Your task to perform on an android device: open app "Google Play services" Image 0: 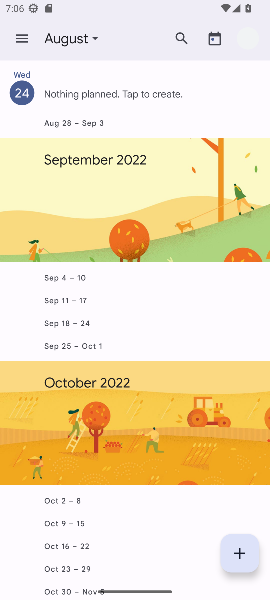
Step 0: press home button
Your task to perform on an android device: open app "Google Play services" Image 1: 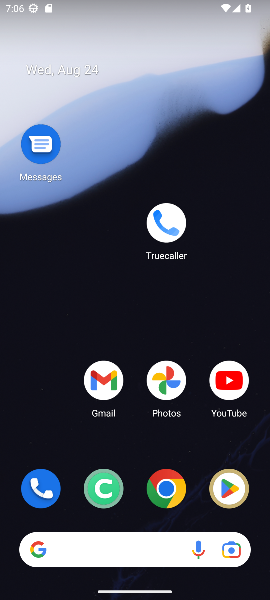
Step 1: click (217, 495)
Your task to perform on an android device: open app "Google Play services" Image 2: 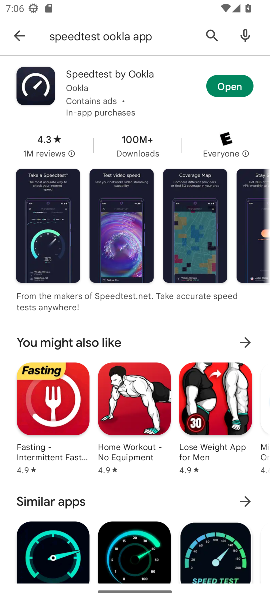
Step 2: click (214, 42)
Your task to perform on an android device: open app "Google Play services" Image 3: 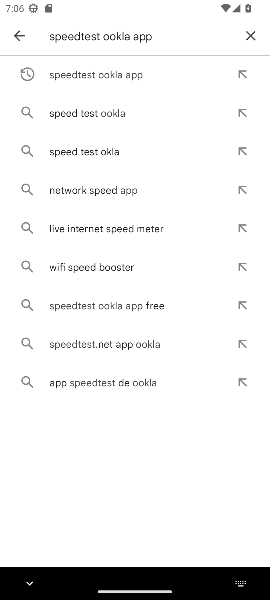
Step 3: click (247, 36)
Your task to perform on an android device: open app "Google Play services" Image 4: 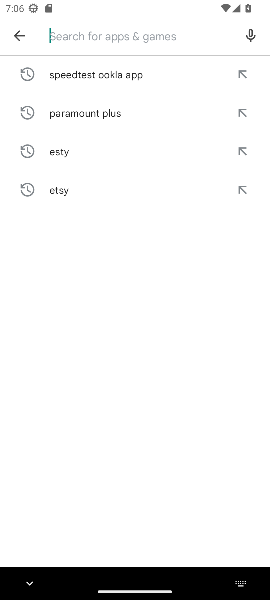
Step 4: type "google play"
Your task to perform on an android device: open app "Google Play services" Image 5: 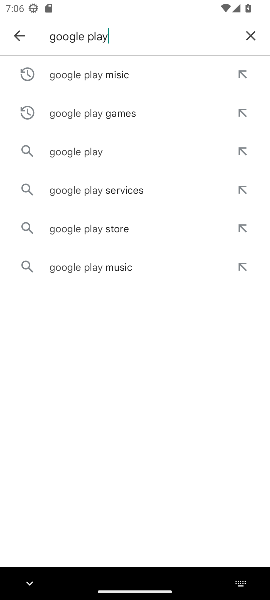
Step 5: click (104, 183)
Your task to perform on an android device: open app "Google Play services" Image 6: 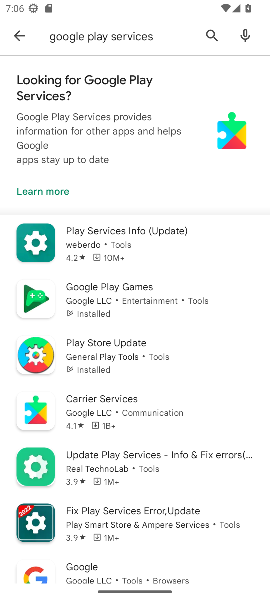
Step 6: task complete